Your task to perform on an android device: Open Youtube and go to "Your channel" Image 0: 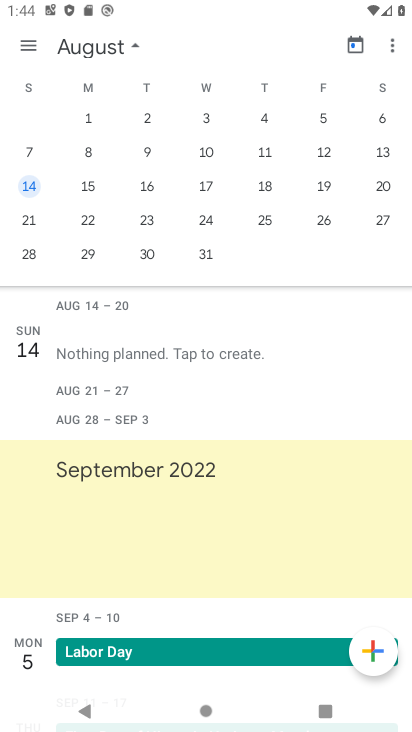
Step 0: press home button
Your task to perform on an android device: Open Youtube and go to "Your channel" Image 1: 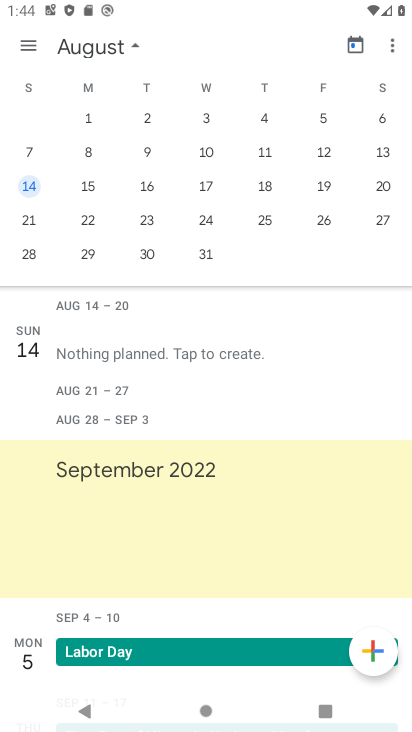
Step 1: drag from (396, 689) to (277, 9)
Your task to perform on an android device: Open Youtube and go to "Your channel" Image 2: 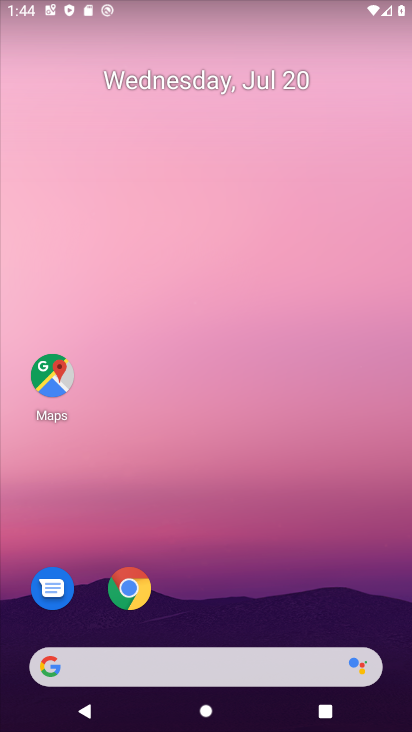
Step 2: drag from (355, 624) to (234, 3)
Your task to perform on an android device: Open Youtube and go to "Your channel" Image 3: 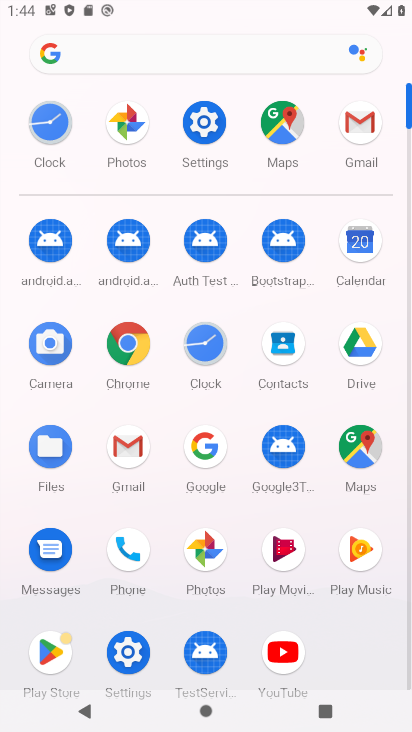
Step 3: click (275, 653)
Your task to perform on an android device: Open Youtube and go to "Your channel" Image 4: 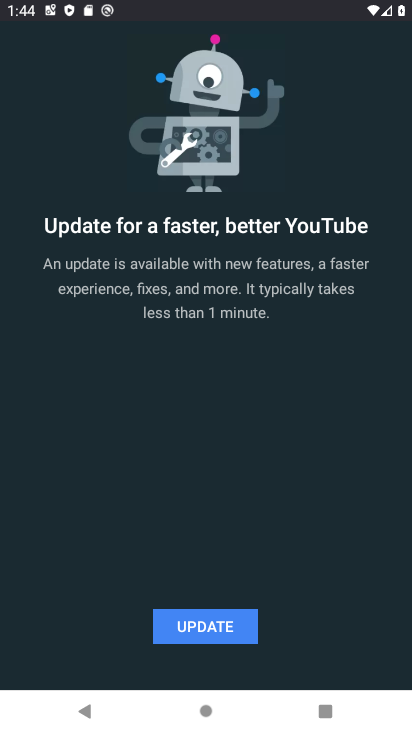
Step 4: click (192, 646)
Your task to perform on an android device: Open Youtube and go to "Your channel" Image 5: 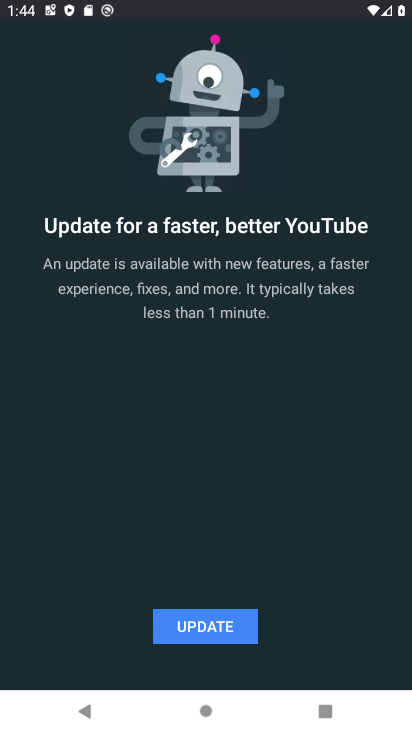
Step 5: click (181, 616)
Your task to perform on an android device: Open Youtube and go to "Your channel" Image 6: 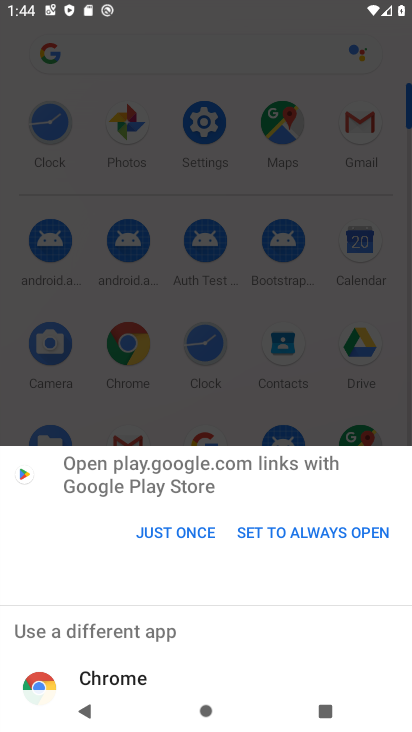
Step 6: click (162, 518)
Your task to perform on an android device: Open Youtube and go to "Your channel" Image 7: 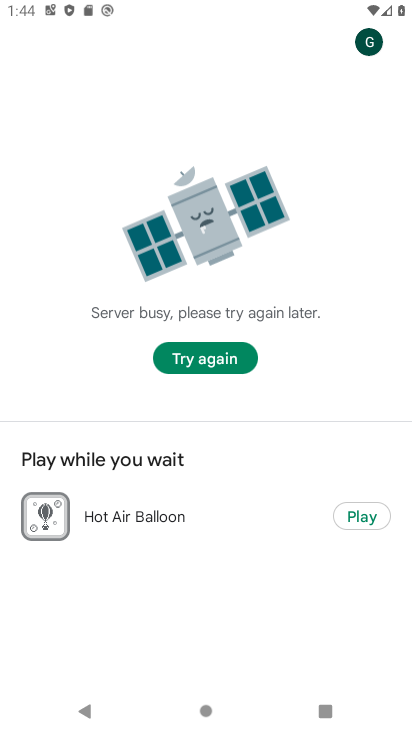
Step 7: task complete